Your task to perform on an android device: Open Google Image 0: 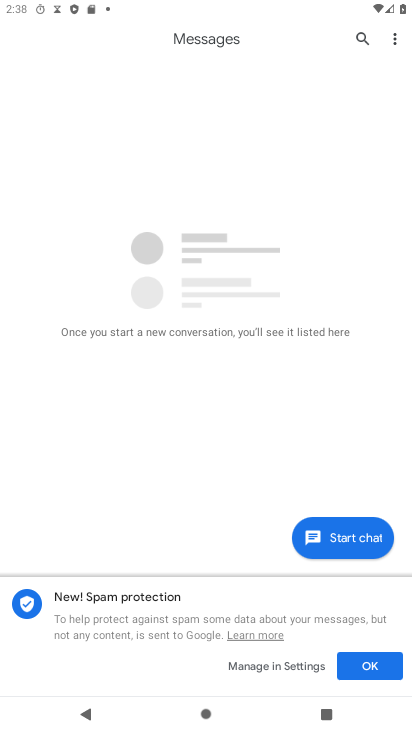
Step 0: press home button
Your task to perform on an android device: Open Google Image 1: 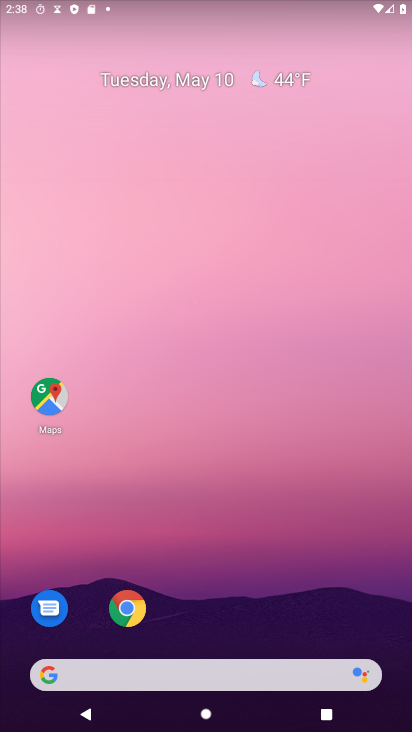
Step 1: drag from (285, 628) to (248, 8)
Your task to perform on an android device: Open Google Image 2: 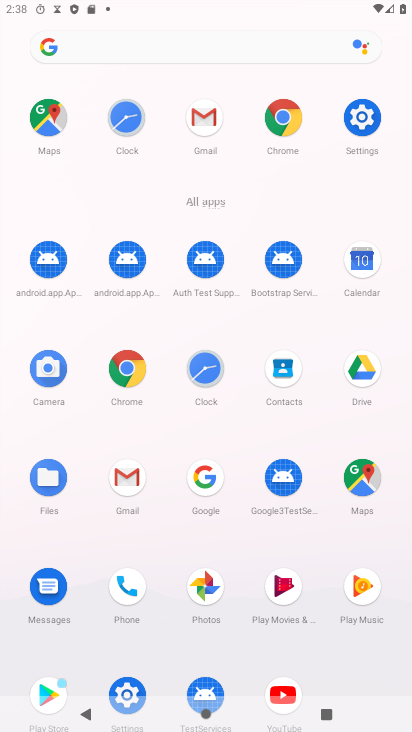
Step 2: click (206, 482)
Your task to perform on an android device: Open Google Image 3: 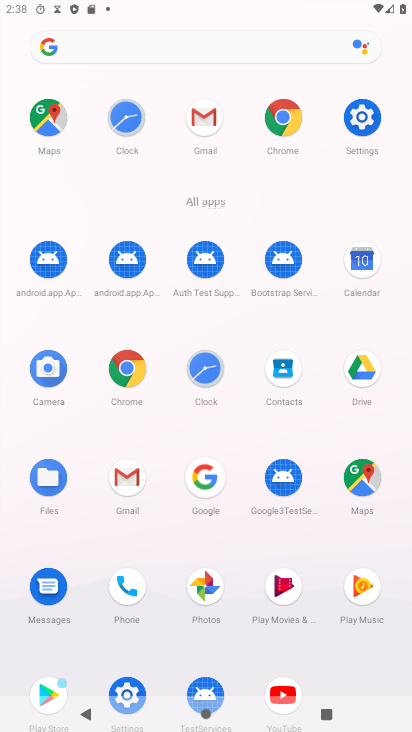
Step 3: click (206, 482)
Your task to perform on an android device: Open Google Image 4: 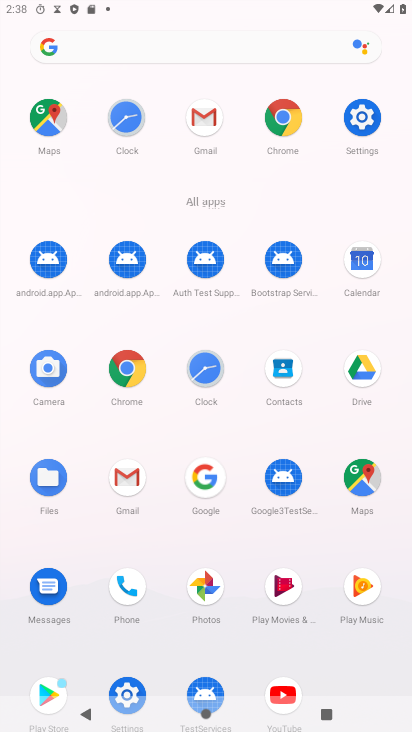
Step 4: click (206, 482)
Your task to perform on an android device: Open Google Image 5: 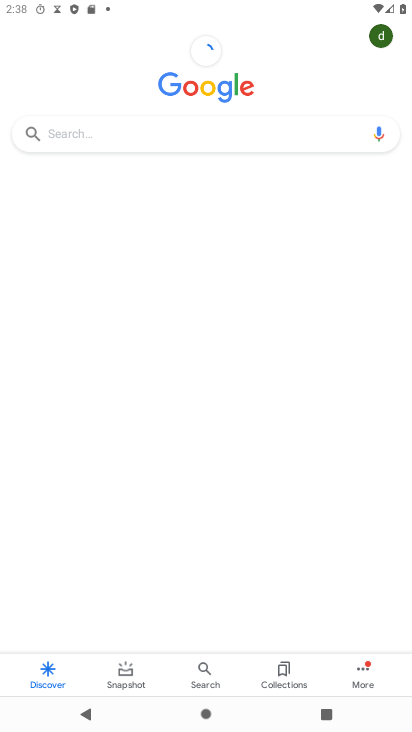
Step 5: task complete